Your task to perform on an android device: Search for Italian restaurants on Maps Image 0: 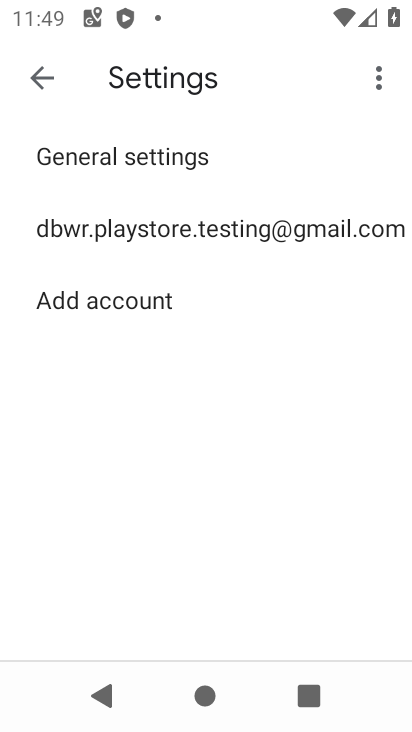
Step 0: press home button
Your task to perform on an android device: Search for Italian restaurants on Maps Image 1: 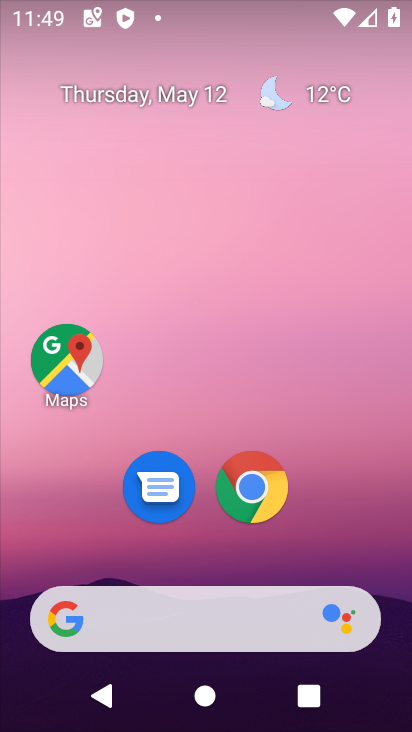
Step 1: click (65, 369)
Your task to perform on an android device: Search for Italian restaurants on Maps Image 2: 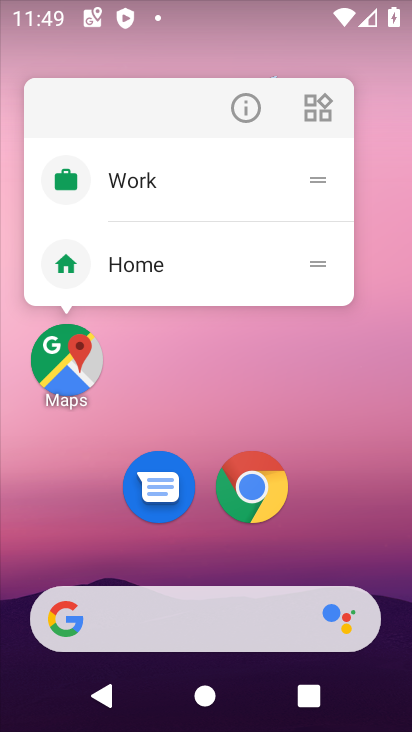
Step 2: click (69, 363)
Your task to perform on an android device: Search for Italian restaurants on Maps Image 3: 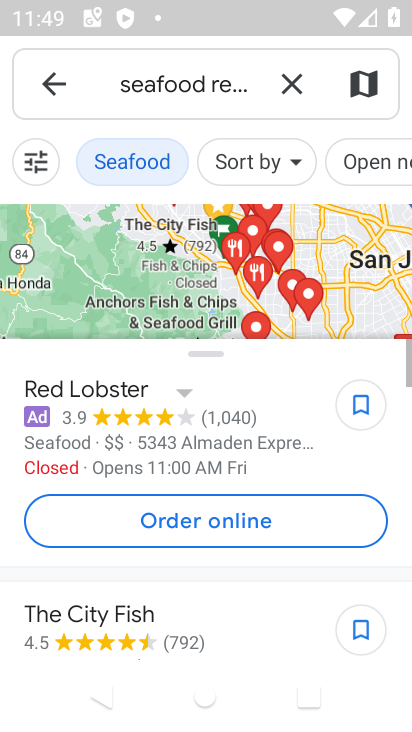
Step 3: click (283, 90)
Your task to perform on an android device: Search for Italian restaurants on Maps Image 4: 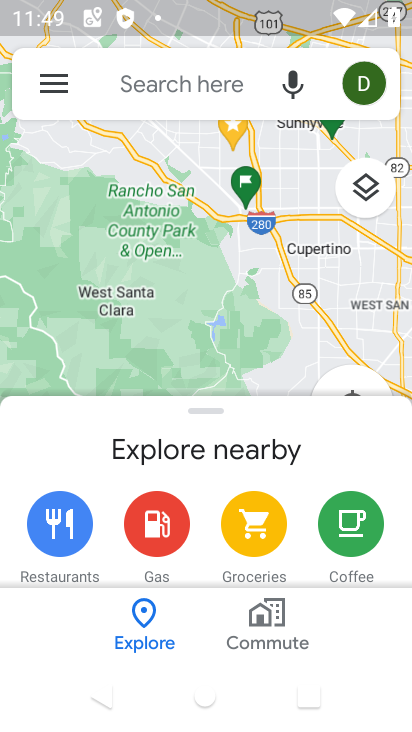
Step 4: click (158, 88)
Your task to perform on an android device: Search for Italian restaurants on Maps Image 5: 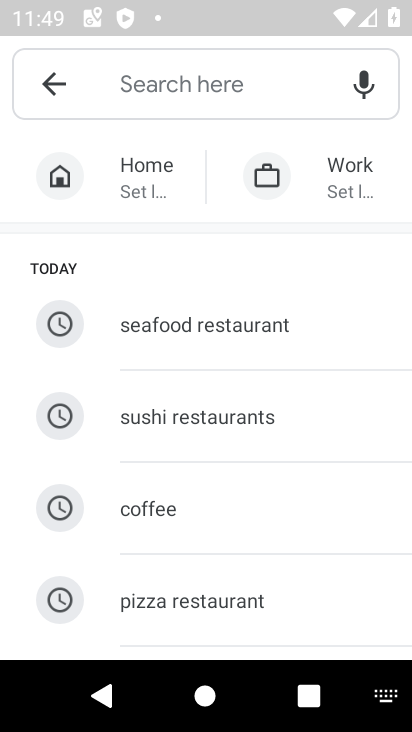
Step 5: type "italian restaurant"
Your task to perform on an android device: Search for Italian restaurants on Maps Image 6: 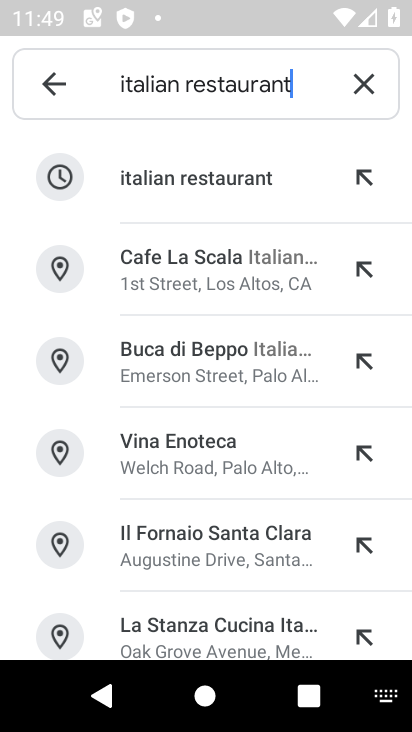
Step 6: click (212, 189)
Your task to perform on an android device: Search for Italian restaurants on Maps Image 7: 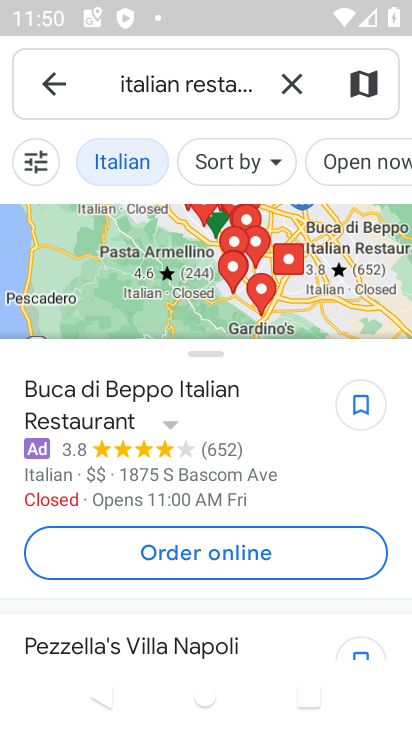
Step 7: task complete